Your task to perform on an android device: Go to Yahoo.com Image 0: 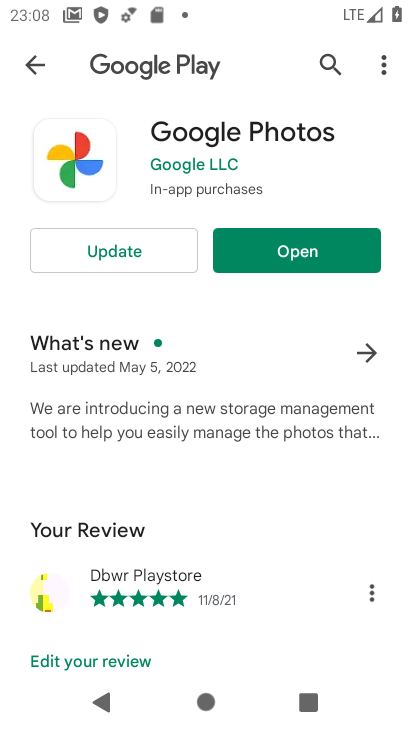
Step 0: press home button
Your task to perform on an android device: Go to Yahoo.com Image 1: 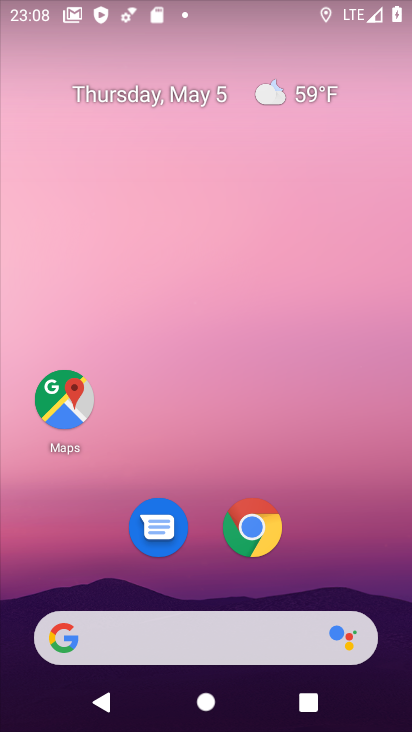
Step 1: click (230, 532)
Your task to perform on an android device: Go to Yahoo.com Image 2: 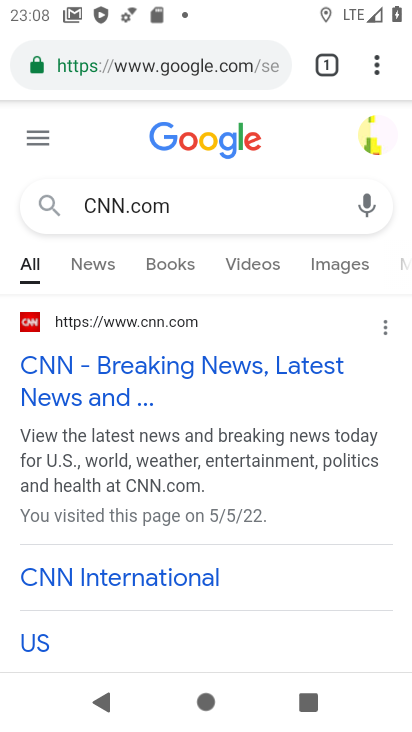
Step 2: click (208, 49)
Your task to perform on an android device: Go to Yahoo.com Image 3: 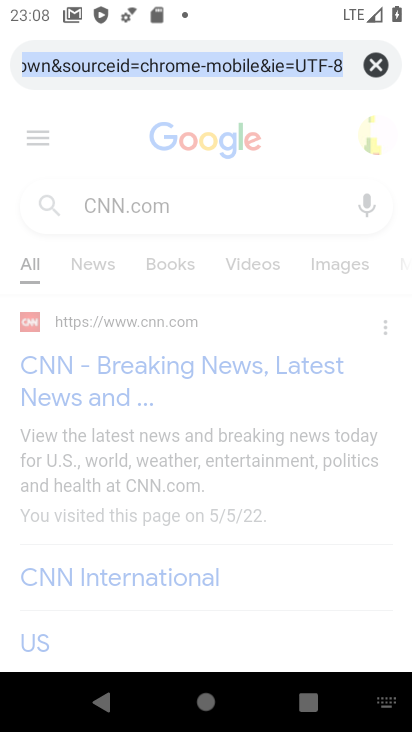
Step 3: type "yahoo.com"
Your task to perform on an android device: Go to Yahoo.com Image 4: 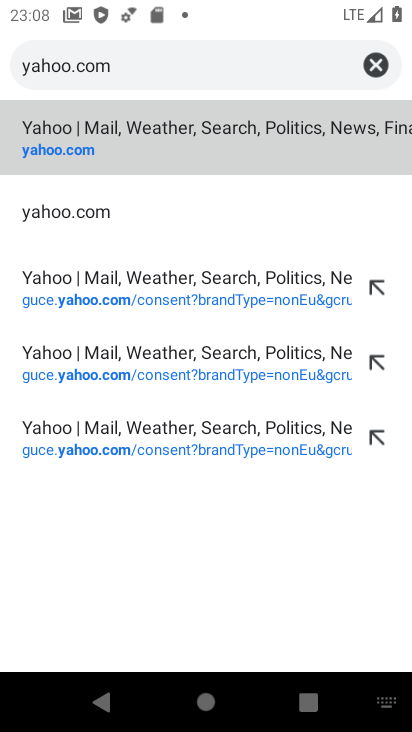
Step 4: click (133, 227)
Your task to perform on an android device: Go to Yahoo.com Image 5: 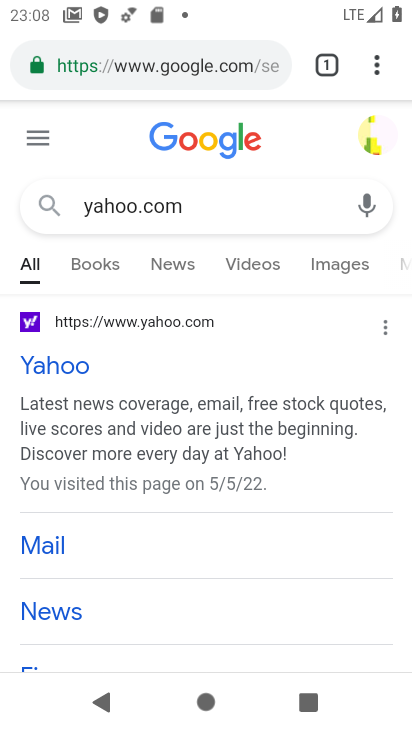
Step 5: task complete